Your task to perform on an android device: Open accessibility settings Image 0: 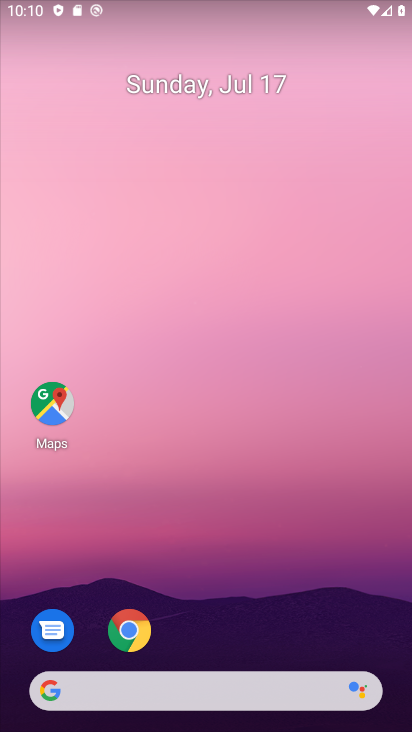
Step 0: drag from (351, 527) to (369, 43)
Your task to perform on an android device: Open accessibility settings Image 1: 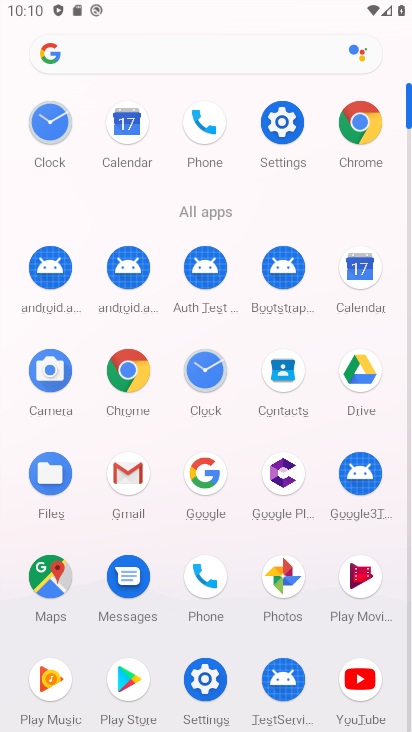
Step 1: click (281, 128)
Your task to perform on an android device: Open accessibility settings Image 2: 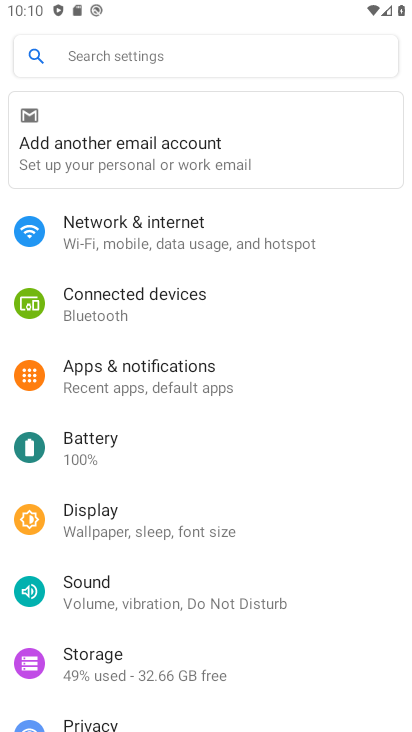
Step 2: drag from (330, 449) to (335, 288)
Your task to perform on an android device: Open accessibility settings Image 3: 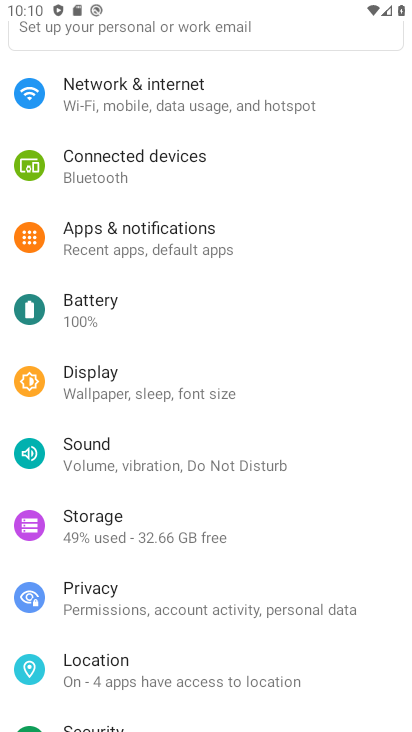
Step 3: drag from (350, 460) to (351, 352)
Your task to perform on an android device: Open accessibility settings Image 4: 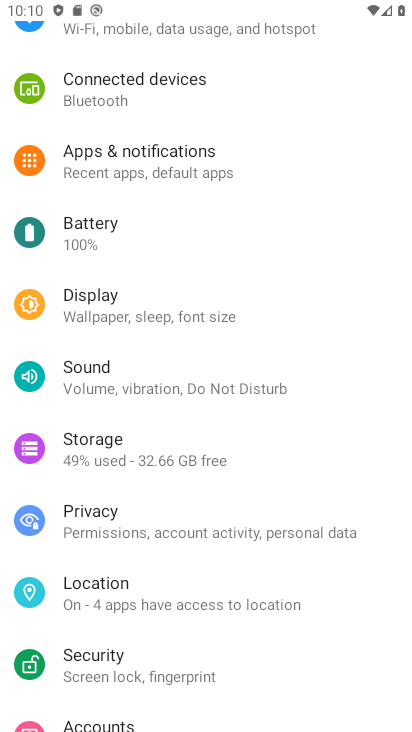
Step 4: drag from (355, 572) to (369, 357)
Your task to perform on an android device: Open accessibility settings Image 5: 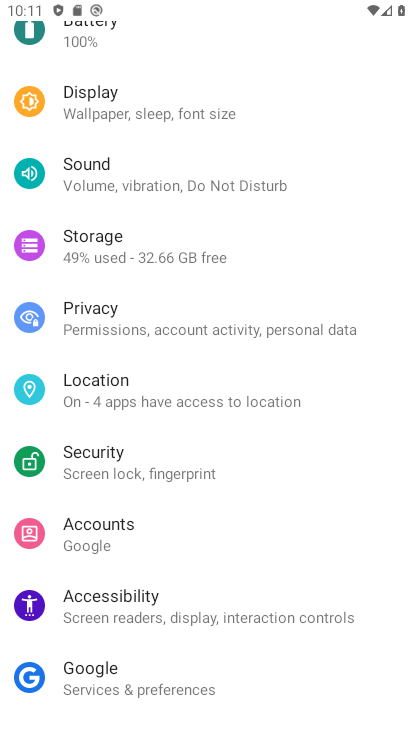
Step 5: drag from (356, 500) to (371, 359)
Your task to perform on an android device: Open accessibility settings Image 6: 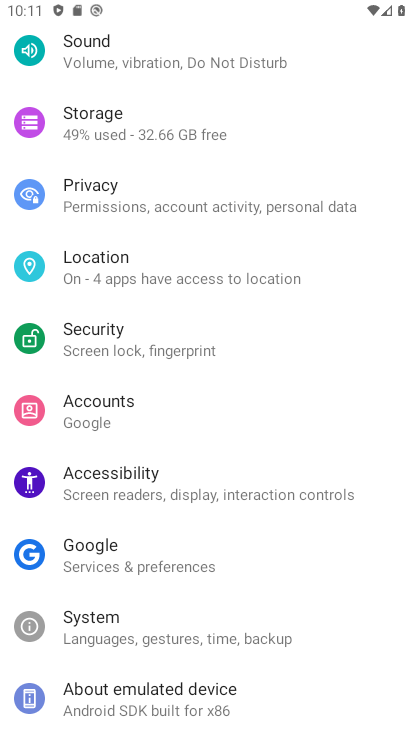
Step 6: drag from (353, 533) to (351, 353)
Your task to perform on an android device: Open accessibility settings Image 7: 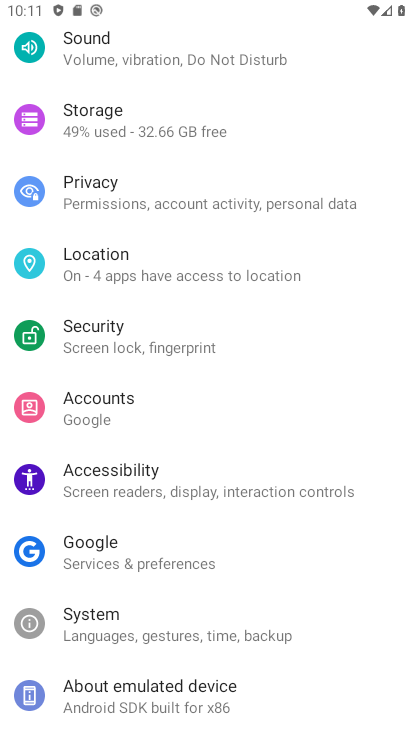
Step 7: drag from (351, 285) to (350, 423)
Your task to perform on an android device: Open accessibility settings Image 8: 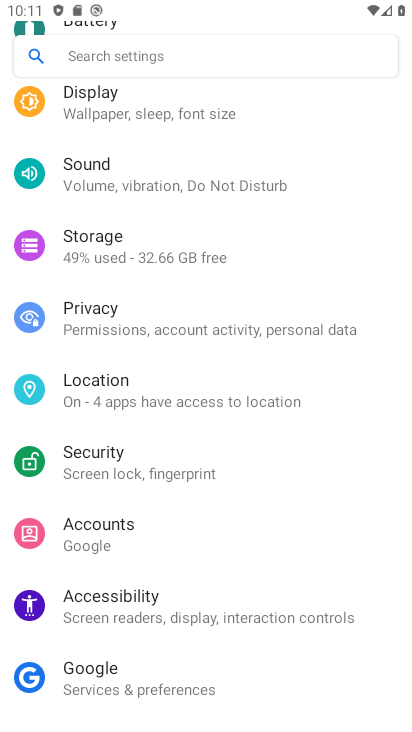
Step 8: drag from (360, 243) to (361, 365)
Your task to perform on an android device: Open accessibility settings Image 9: 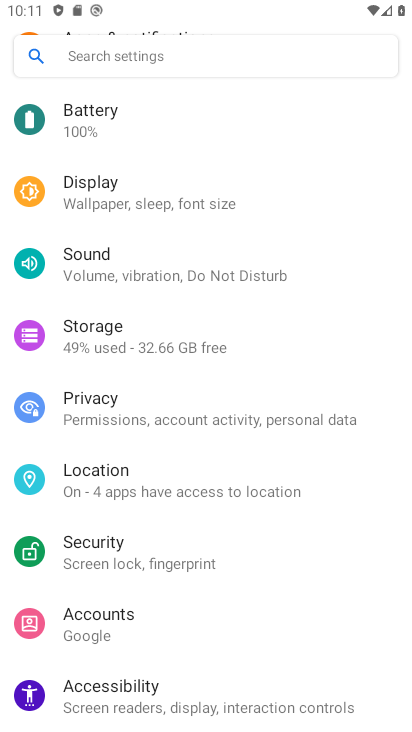
Step 9: drag from (351, 521) to (359, 357)
Your task to perform on an android device: Open accessibility settings Image 10: 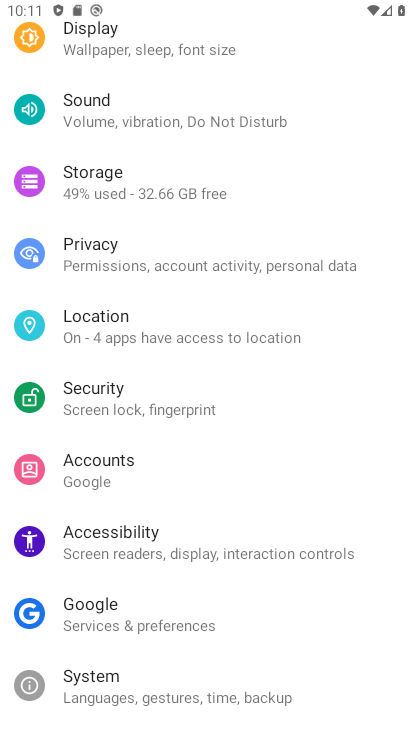
Step 10: click (362, 566)
Your task to perform on an android device: Open accessibility settings Image 11: 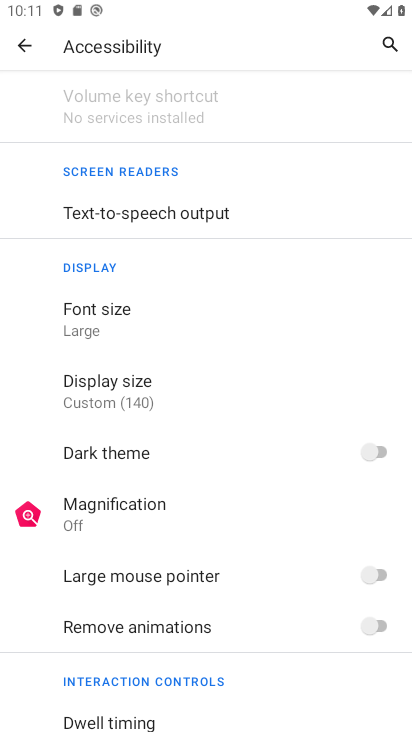
Step 11: task complete